Your task to perform on an android device: What's the weather today? Image 0: 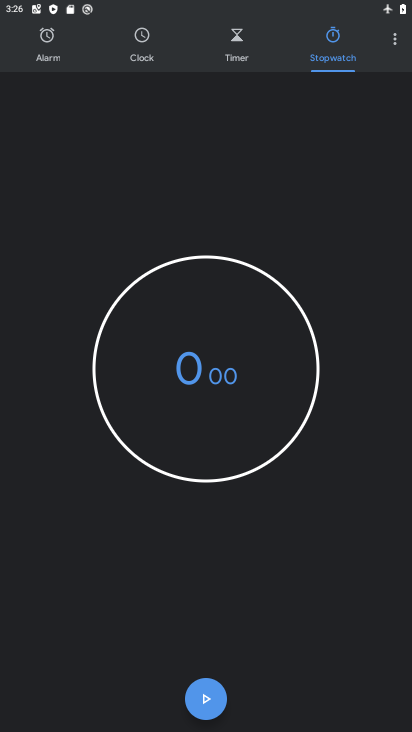
Step 0: press home button
Your task to perform on an android device: What's the weather today? Image 1: 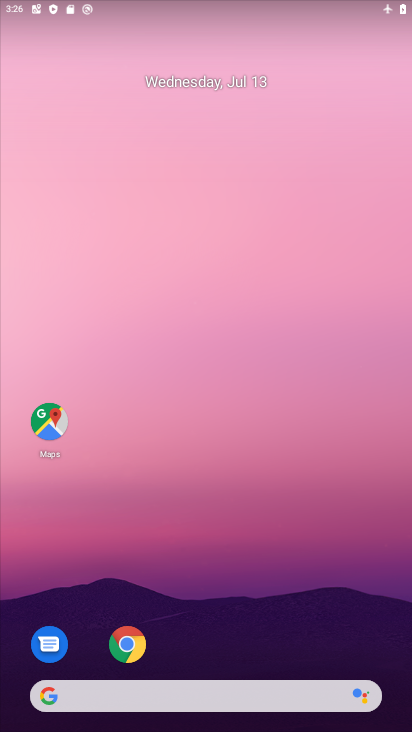
Step 1: click (306, 292)
Your task to perform on an android device: What's the weather today? Image 2: 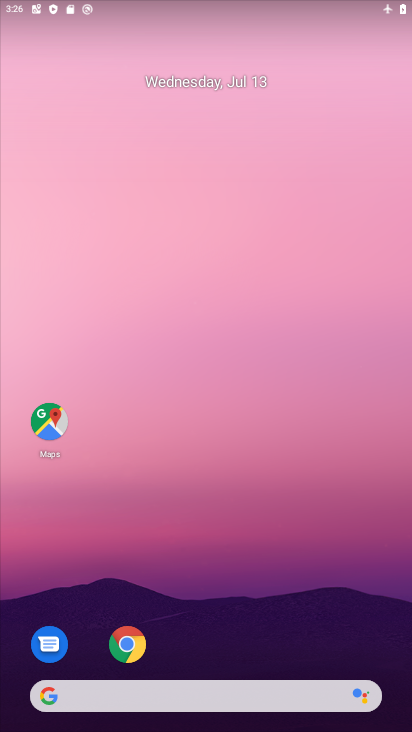
Step 2: drag from (266, 551) to (234, 88)
Your task to perform on an android device: What's the weather today? Image 3: 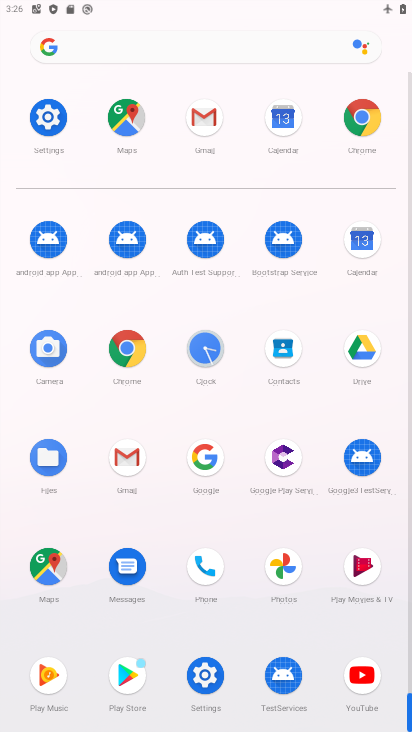
Step 3: click (363, 117)
Your task to perform on an android device: What's the weather today? Image 4: 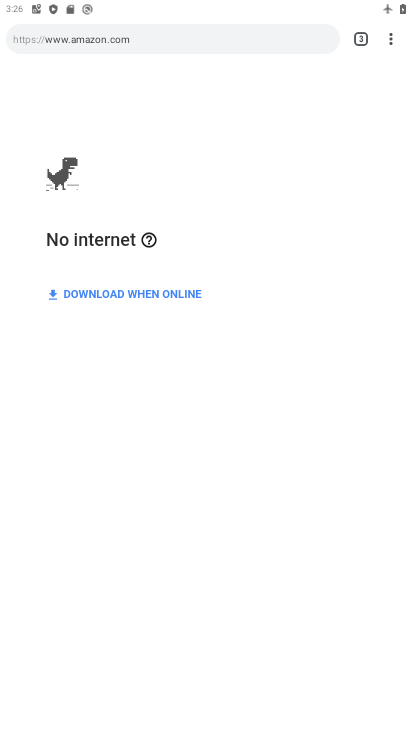
Step 4: click (288, 37)
Your task to perform on an android device: What's the weather today? Image 5: 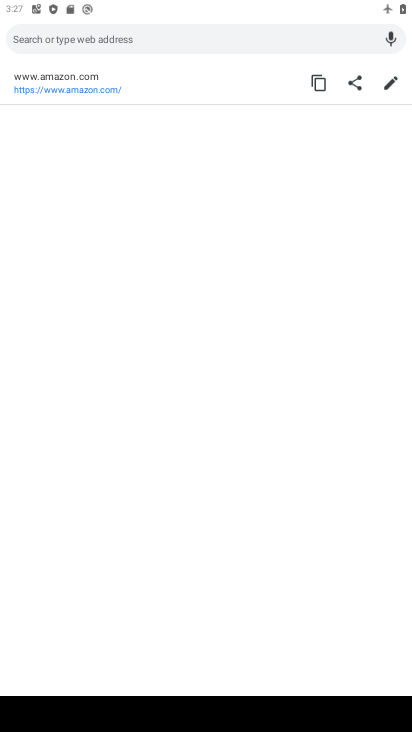
Step 5: type "weather"
Your task to perform on an android device: What's the weather today? Image 6: 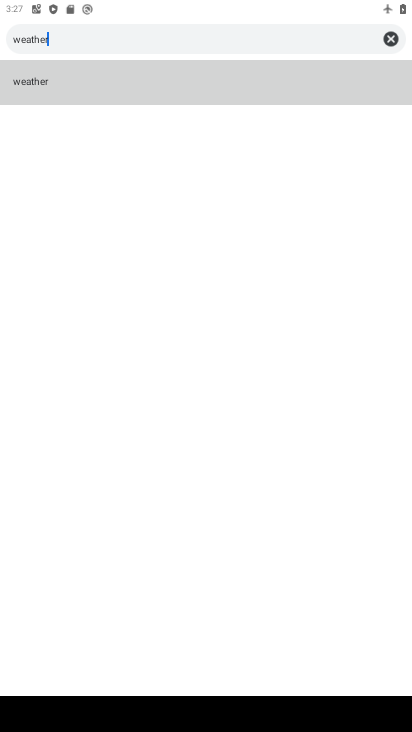
Step 6: click (28, 86)
Your task to perform on an android device: What's the weather today? Image 7: 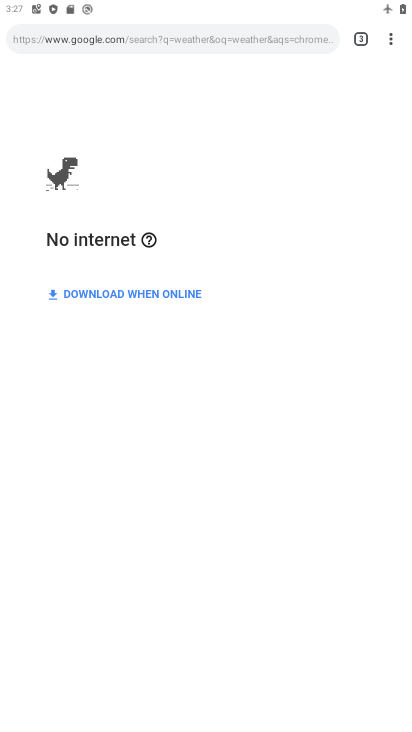
Step 7: task complete